Your task to perform on an android device: Open the map Image 0: 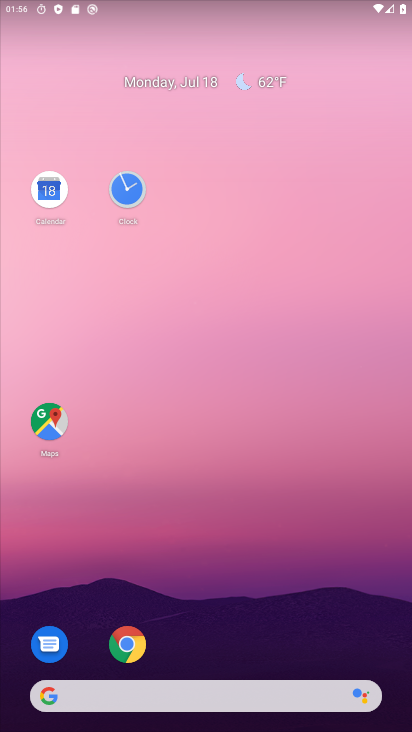
Step 0: click (52, 403)
Your task to perform on an android device: Open the map Image 1: 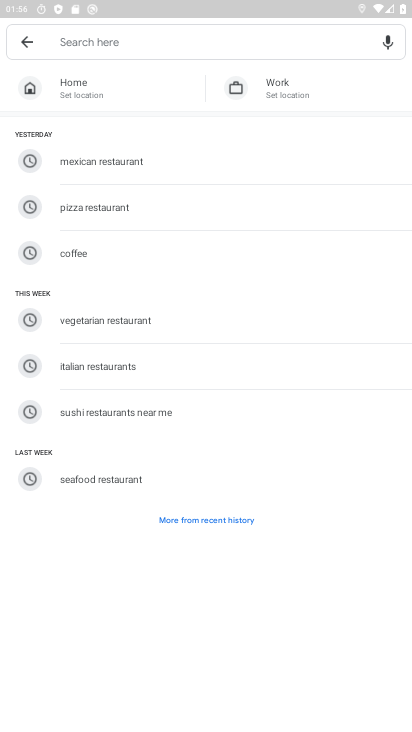
Step 1: task complete